Your task to perform on an android device: empty trash in google photos Image 0: 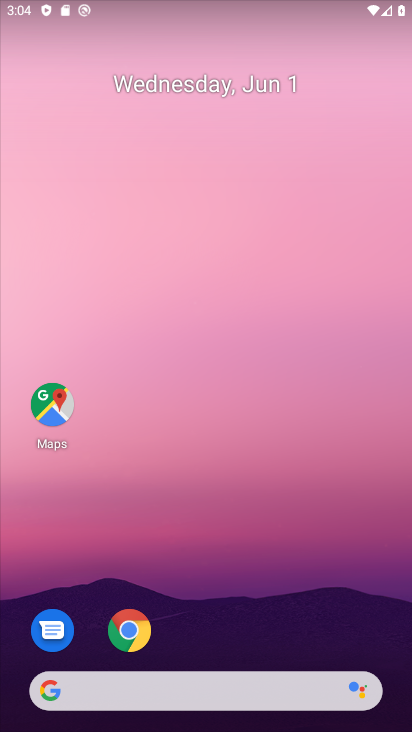
Step 0: click (390, 297)
Your task to perform on an android device: empty trash in google photos Image 1: 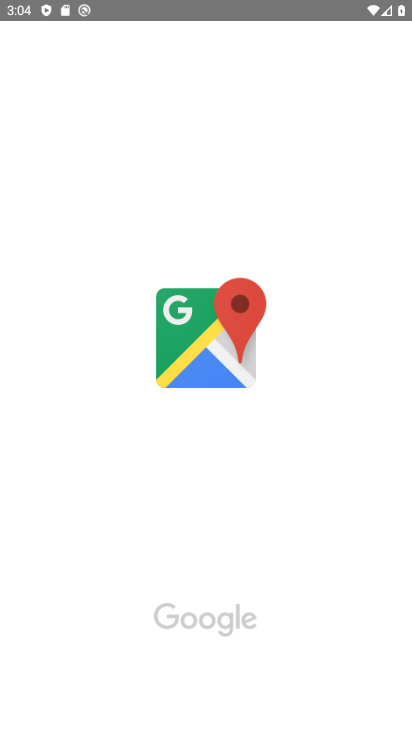
Step 1: press home button
Your task to perform on an android device: empty trash in google photos Image 2: 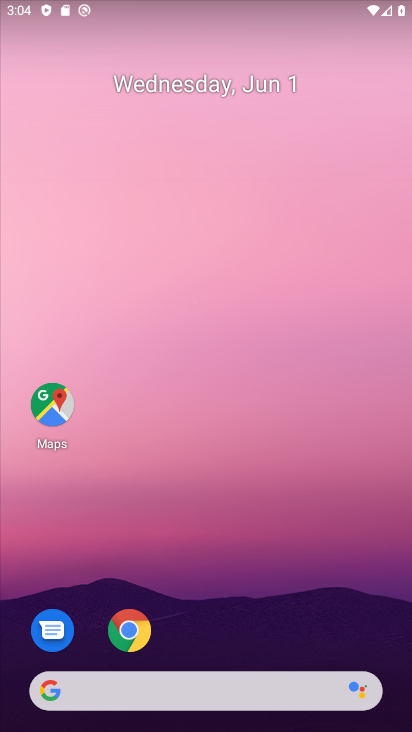
Step 2: drag from (258, 601) to (327, 163)
Your task to perform on an android device: empty trash in google photos Image 3: 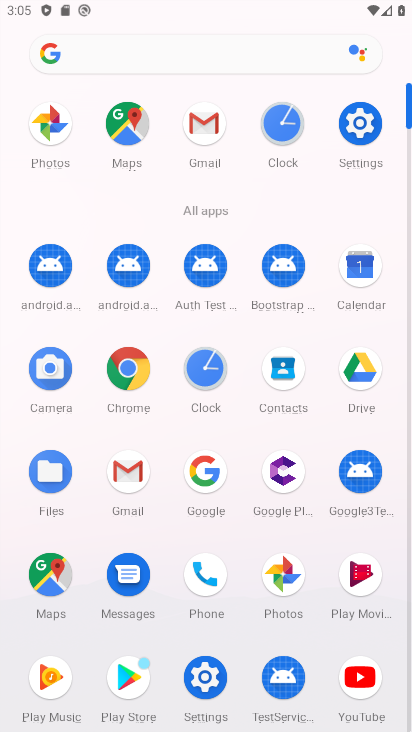
Step 3: click (277, 579)
Your task to perform on an android device: empty trash in google photos Image 4: 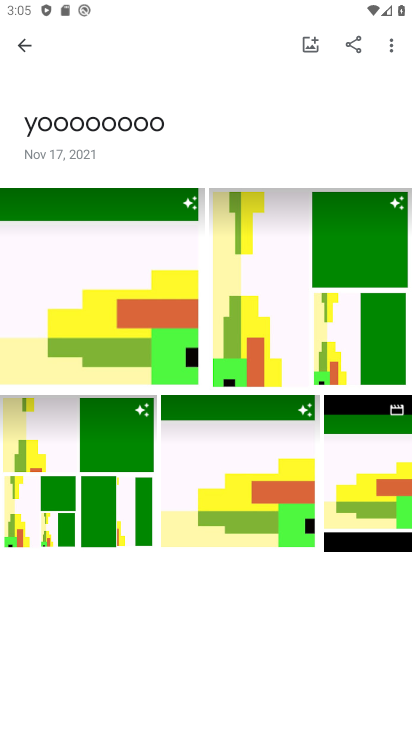
Step 4: click (28, 42)
Your task to perform on an android device: empty trash in google photos Image 5: 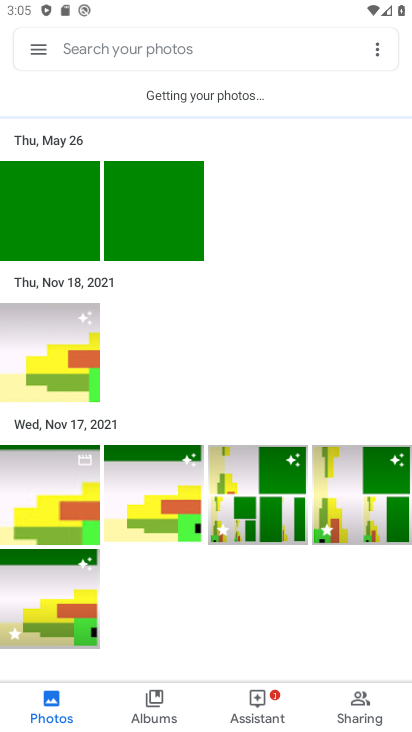
Step 5: click (46, 60)
Your task to perform on an android device: empty trash in google photos Image 6: 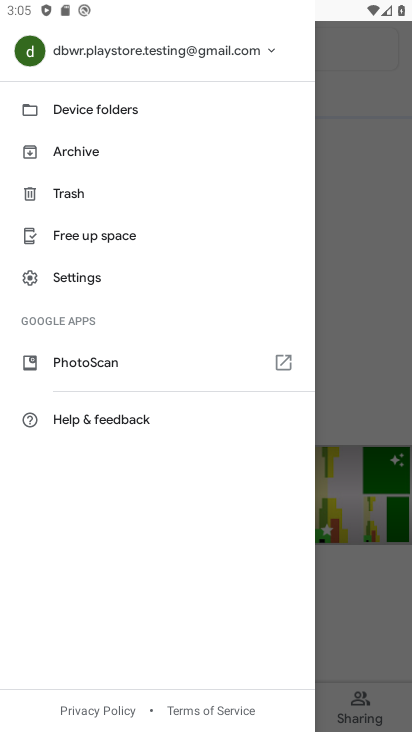
Step 6: click (139, 188)
Your task to perform on an android device: empty trash in google photos Image 7: 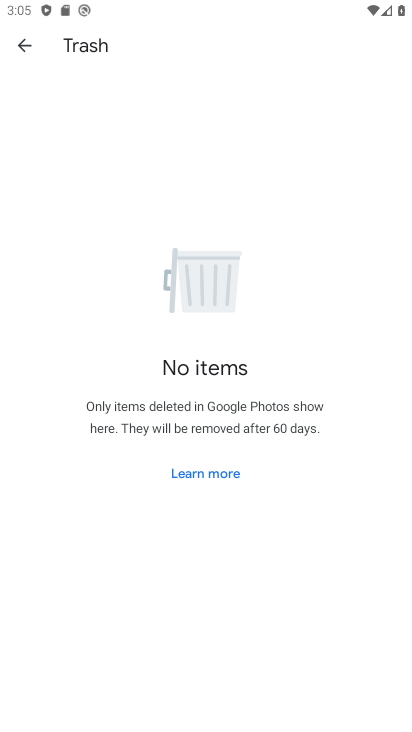
Step 7: task complete